Your task to perform on an android device: See recent photos Image 0: 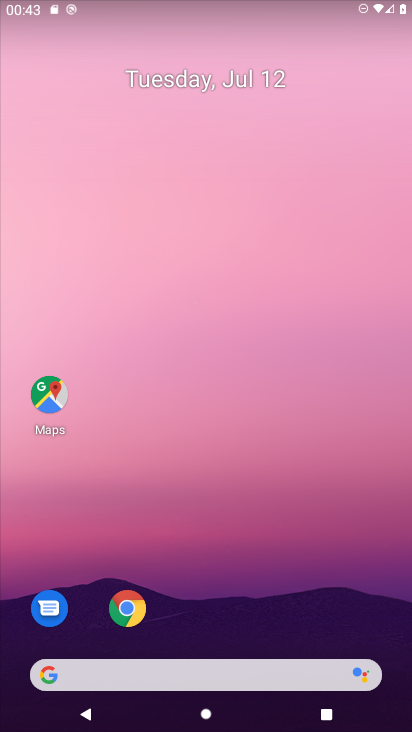
Step 0: drag from (221, 637) to (34, 521)
Your task to perform on an android device: See recent photos Image 1: 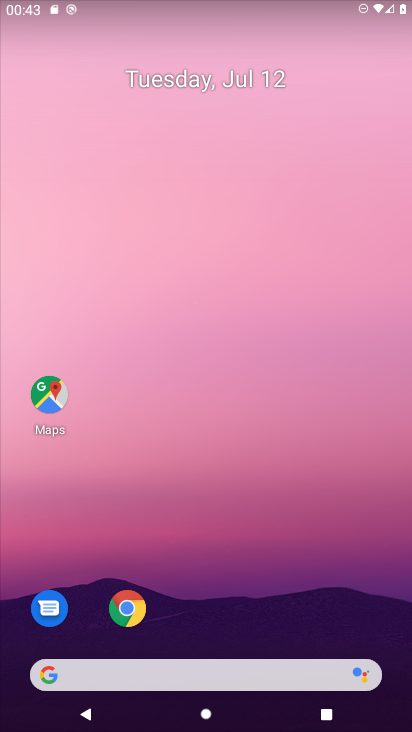
Step 1: drag from (202, 629) to (321, 648)
Your task to perform on an android device: See recent photos Image 2: 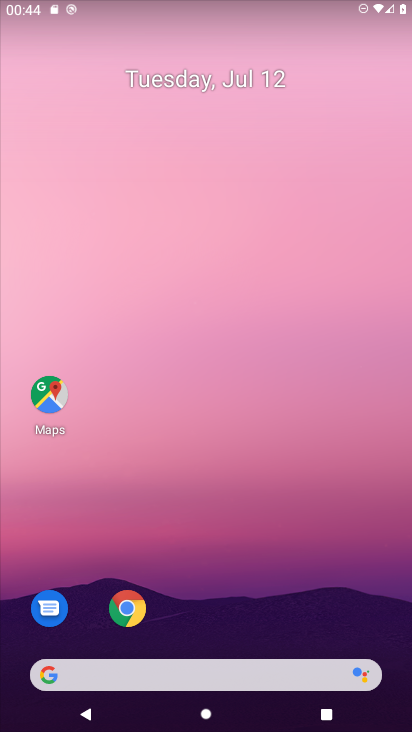
Step 2: drag from (264, 617) to (172, 31)
Your task to perform on an android device: See recent photos Image 3: 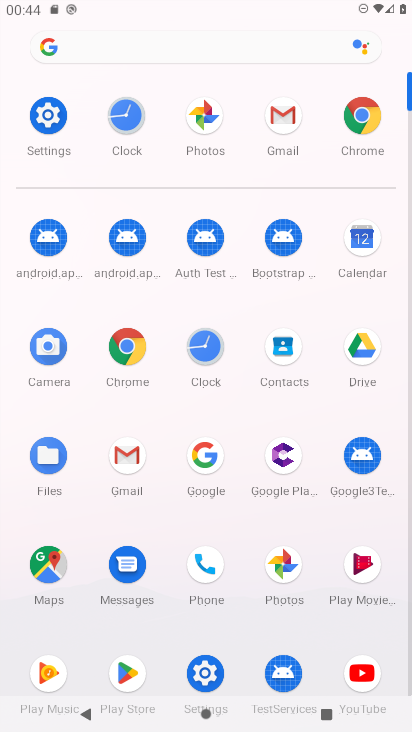
Step 3: click (283, 574)
Your task to perform on an android device: See recent photos Image 4: 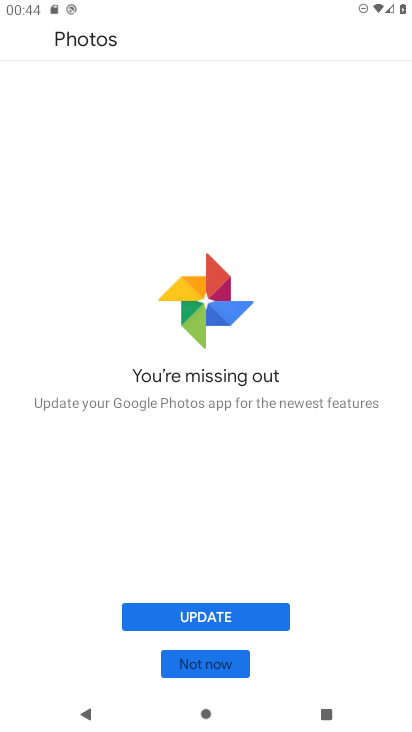
Step 4: click (206, 669)
Your task to perform on an android device: See recent photos Image 5: 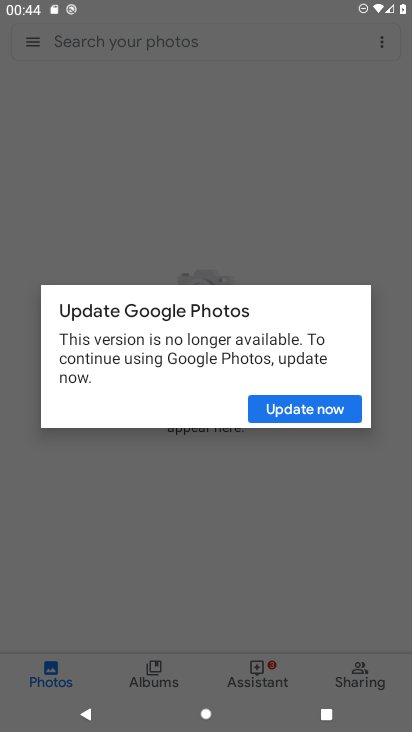
Step 5: click (196, 515)
Your task to perform on an android device: See recent photos Image 6: 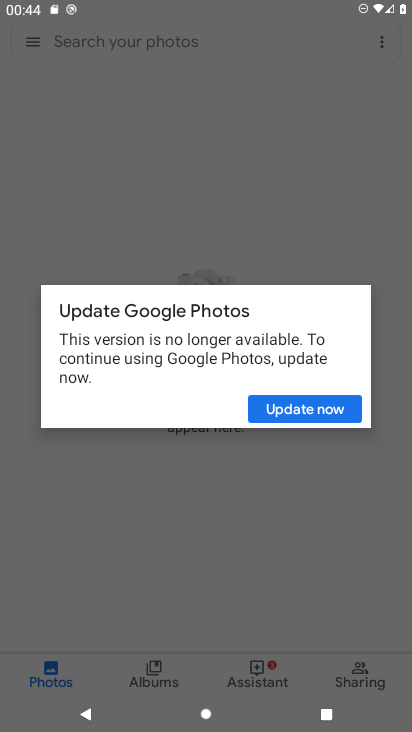
Step 6: click (339, 409)
Your task to perform on an android device: See recent photos Image 7: 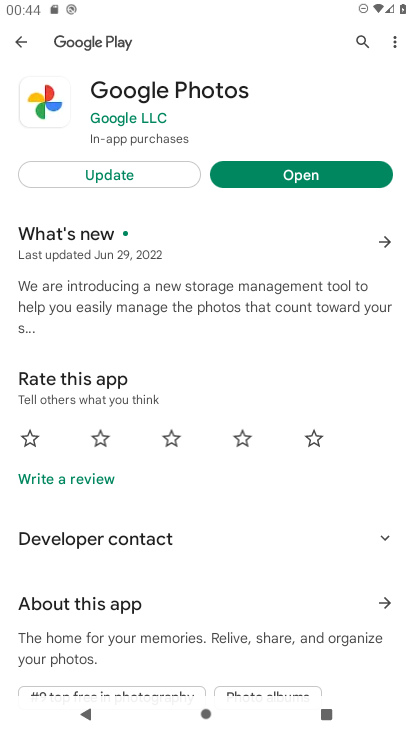
Step 7: click (123, 177)
Your task to perform on an android device: See recent photos Image 8: 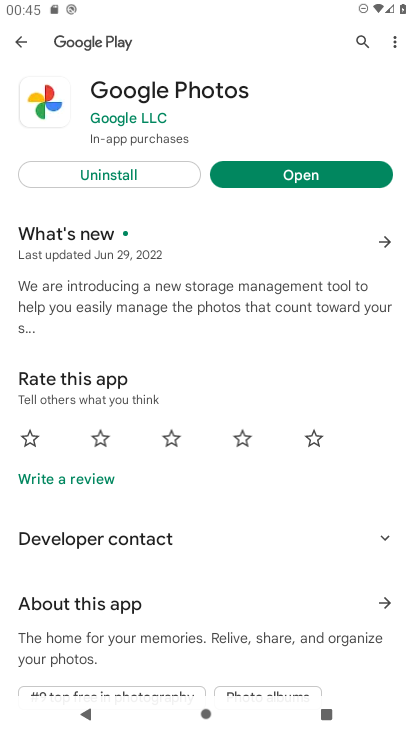
Step 8: click (320, 180)
Your task to perform on an android device: See recent photos Image 9: 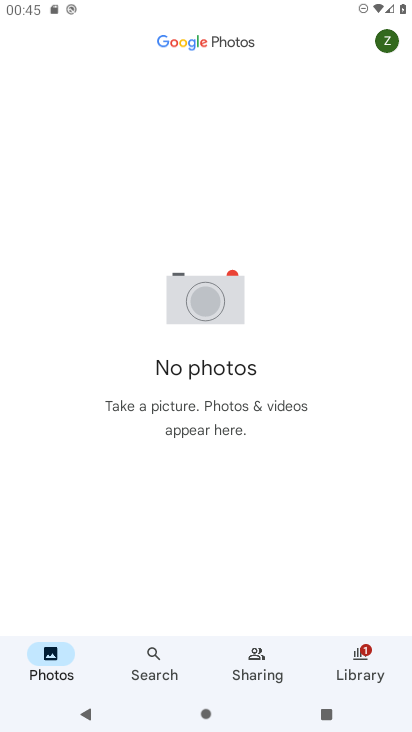
Step 9: task complete